Your task to perform on an android device: Open location settings Image 0: 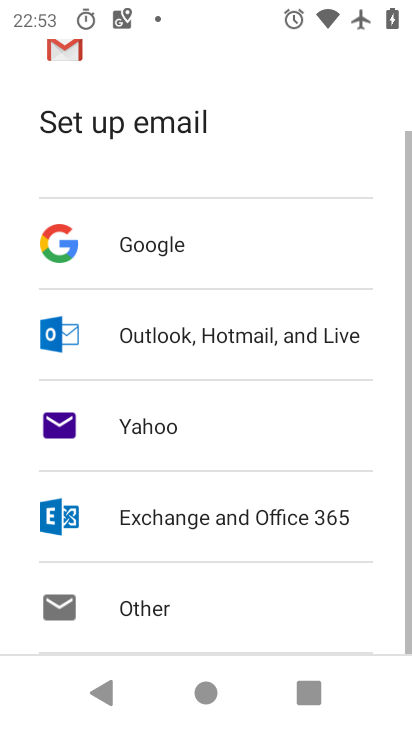
Step 0: drag from (208, 621) to (272, 116)
Your task to perform on an android device: Open location settings Image 1: 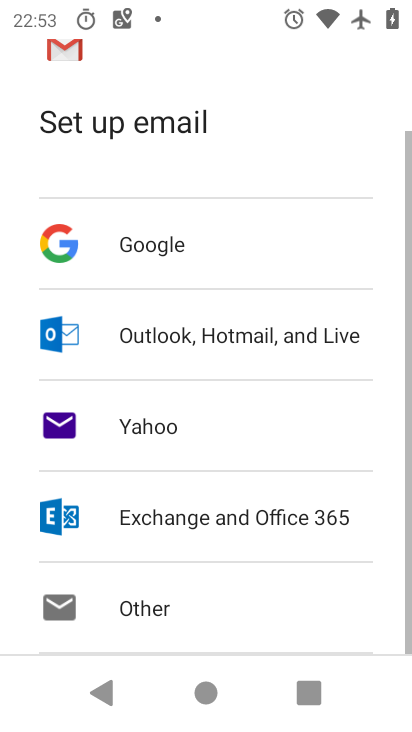
Step 1: press home button
Your task to perform on an android device: Open location settings Image 2: 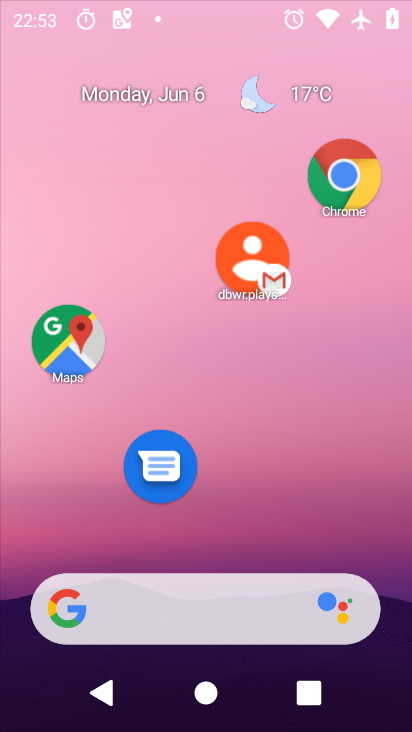
Step 2: drag from (194, 600) to (229, 59)
Your task to perform on an android device: Open location settings Image 3: 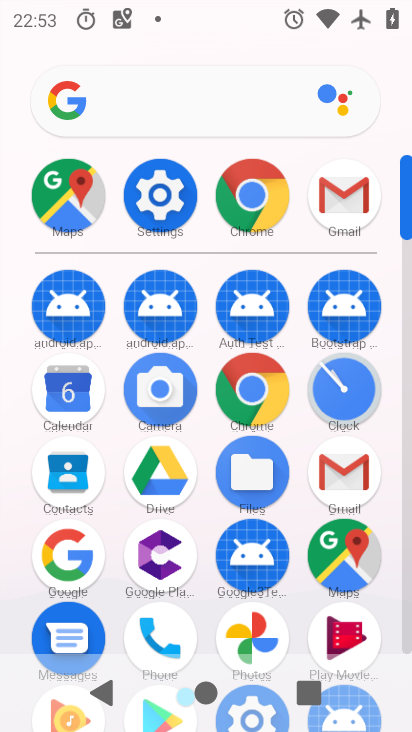
Step 3: click (156, 197)
Your task to perform on an android device: Open location settings Image 4: 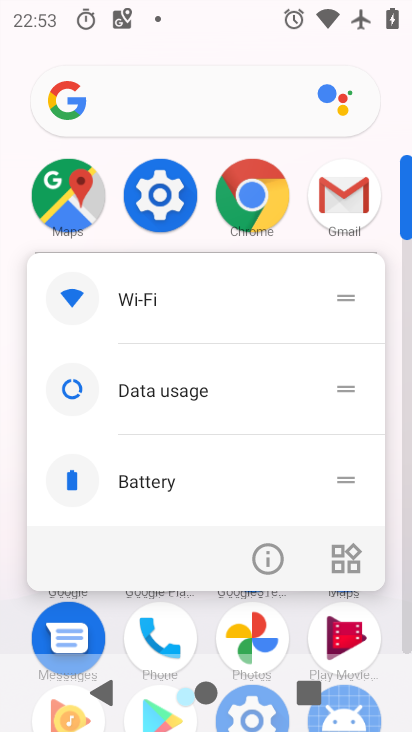
Step 4: click (268, 546)
Your task to perform on an android device: Open location settings Image 5: 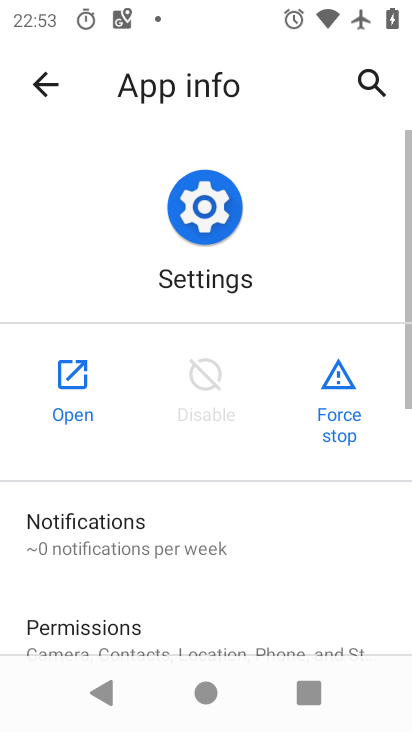
Step 5: click (64, 402)
Your task to perform on an android device: Open location settings Image 6: 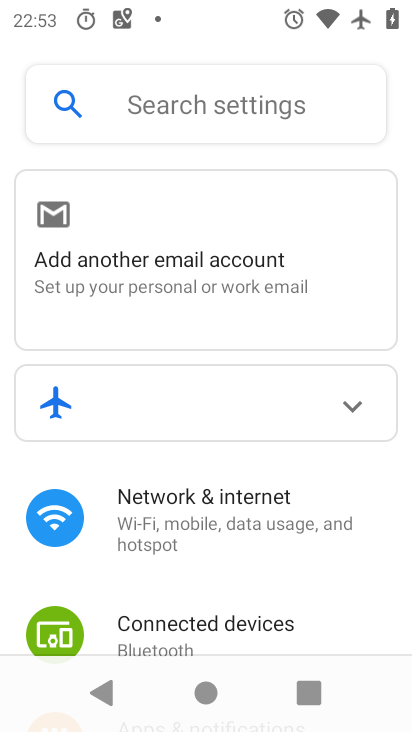
Step 6: drag from (199, 511) to (236, 45)
Your task to perform on an android device: Open location settings Image 7: 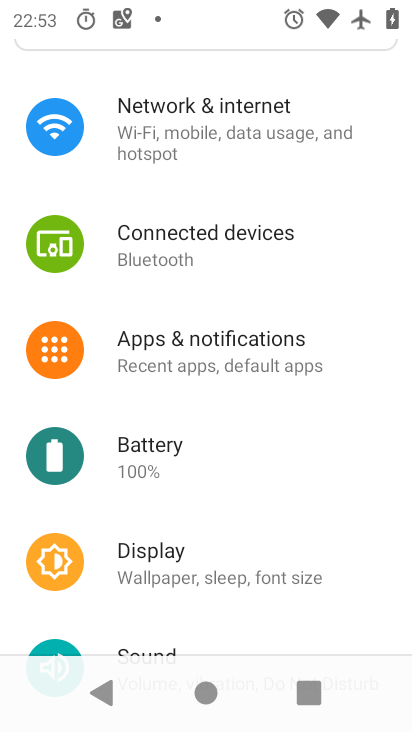
Step 7: drag from (273, 546) to (251, 175)
Your task to perform on an android device: Open location settings Image 8: 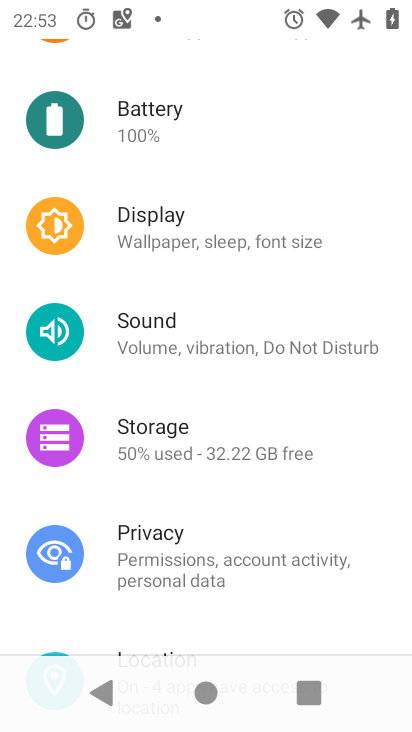
Step 8: drag from (211, 573) to (256, 180)
Your task to perform on an android device: Open location settings Image 9: 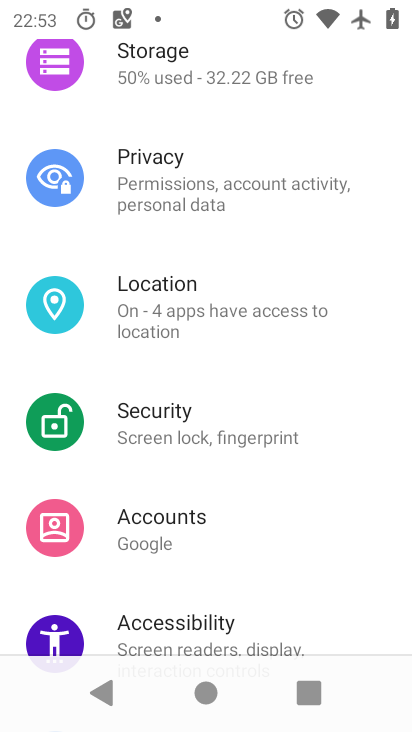
Step 9: click (182, 299)
Your task to perform on an android device: Open location settings Image 10: 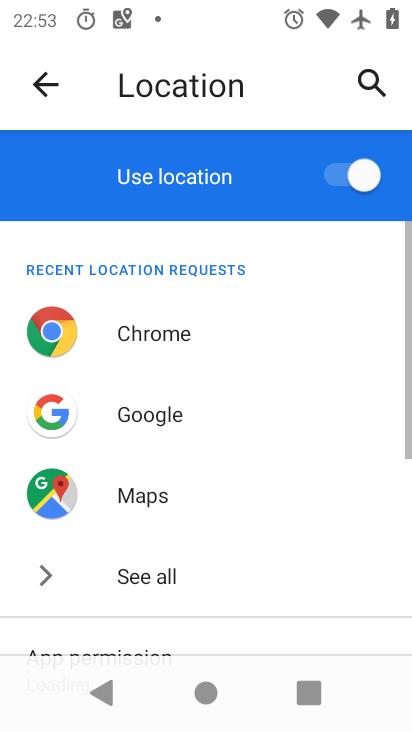
Step 10: drag from (229, 444) to (310, 11)
Your task to perform on an android device: Open location settings Image 11: 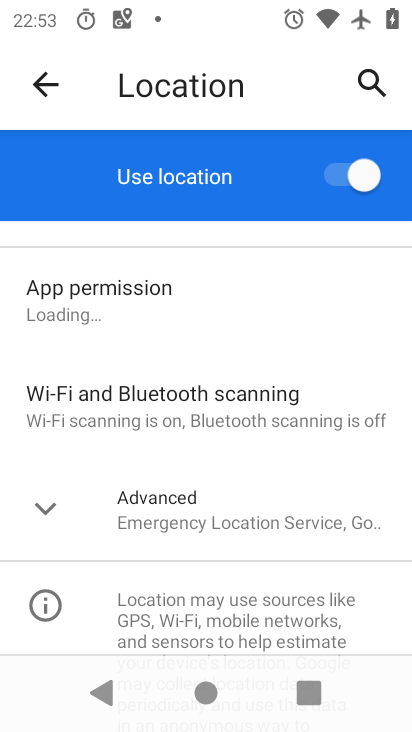
Step 11: drag from (254, 474) to (336, 112)
Your task to perform on an android device: Open location settings Image 12: 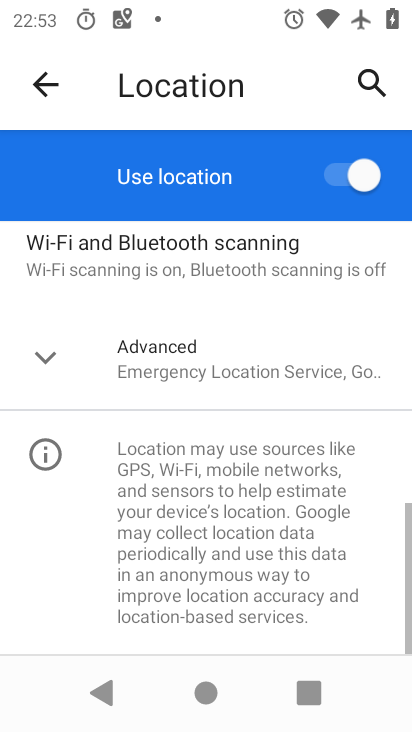
Step 12: click (168, 374)
Your task to perform on an android device: Open location settings Image 13: 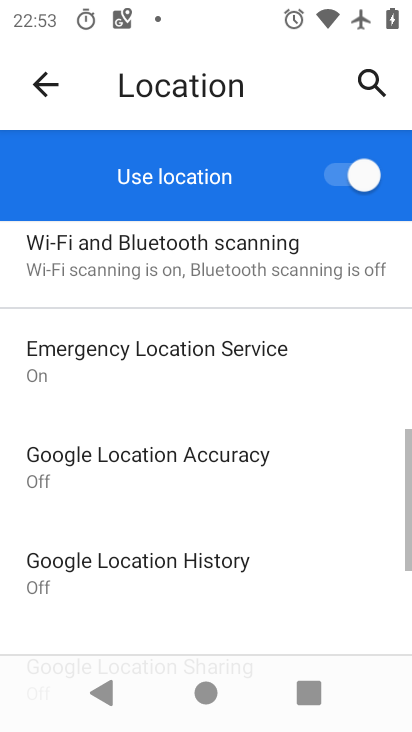
Step 13: task complete